Your task to perform on an android device: find photos in the google photos app Image 0: 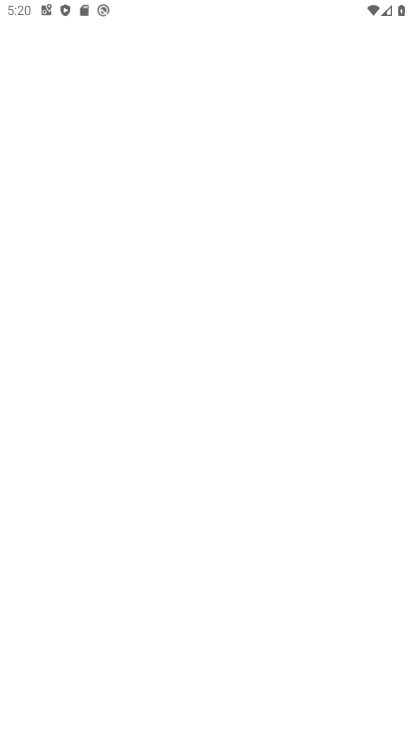
Step 0: click (266, 599)
Your task to perform on an android device: find photos in the google photos app Image 1: 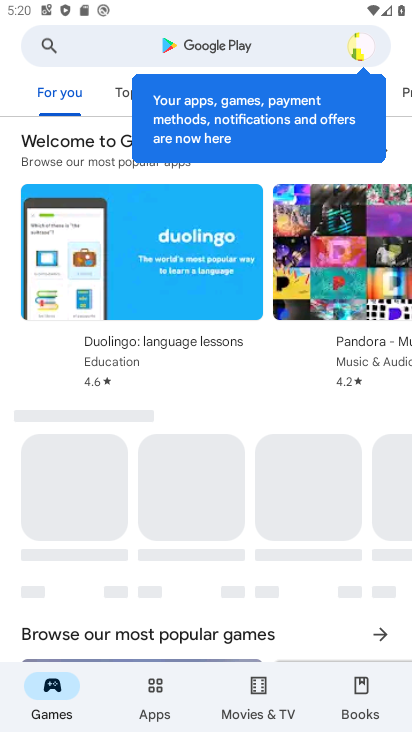
Step 1: press home button
Your task to perform on an android device: find photos in the google photos app Image 2: 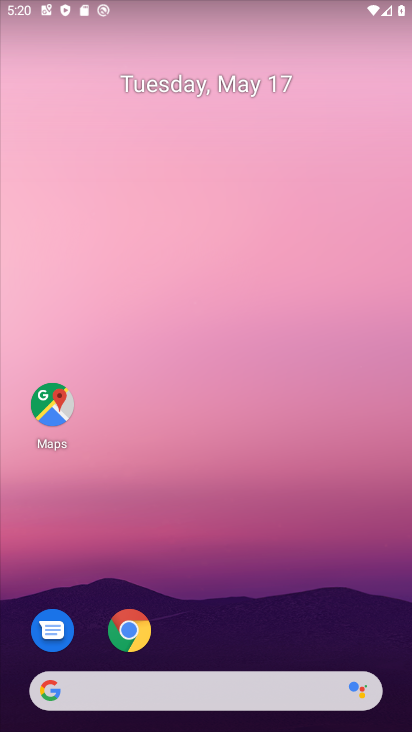
Step 2: drag from (210, 590) to (270, 82)
Your task to perform on an android device: find photos in the google photos app Image 3: 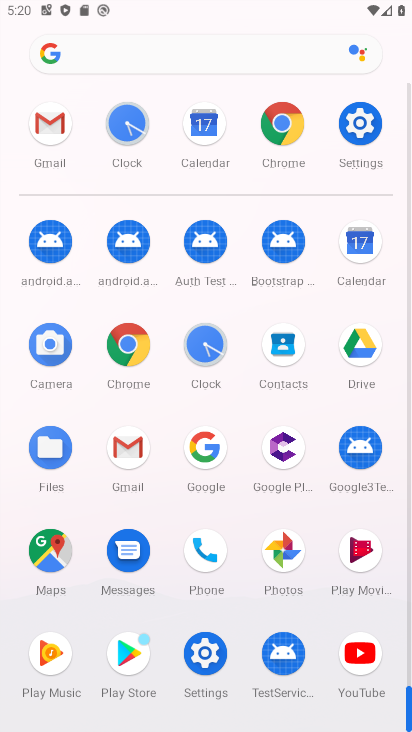
Step 3: click (281, 554)
Your task to perform on an android device: find photos in the google photos app Image 4: 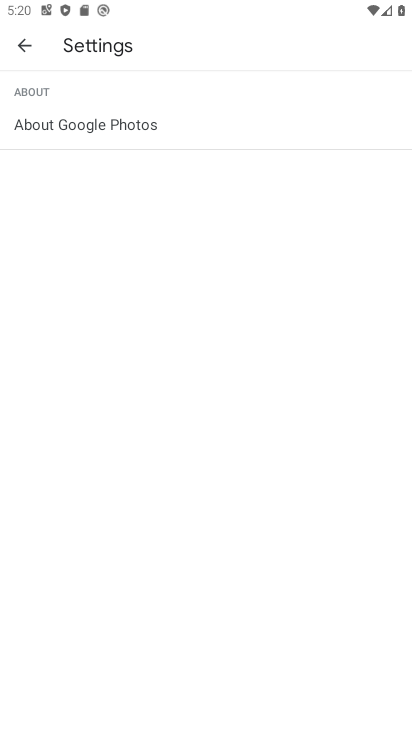
Step 4: click (18, 51)
Your task to perform on an android device: find photos in the google photos app Image 5: 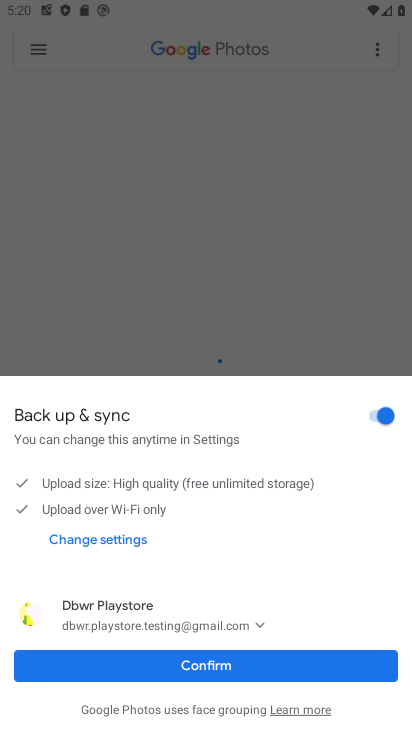
Step 5: click (196, 676)
Your task to perform on an android device: find photos in the google photos app Image 6: 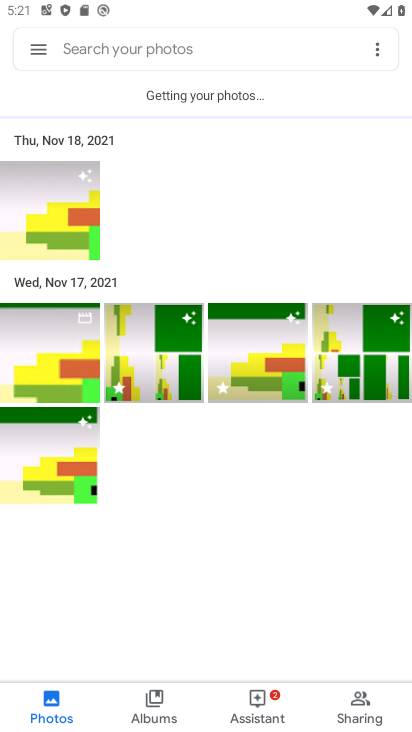
Step 6: task complete